Your task to perform on an android device: Open Amazon Image 0: 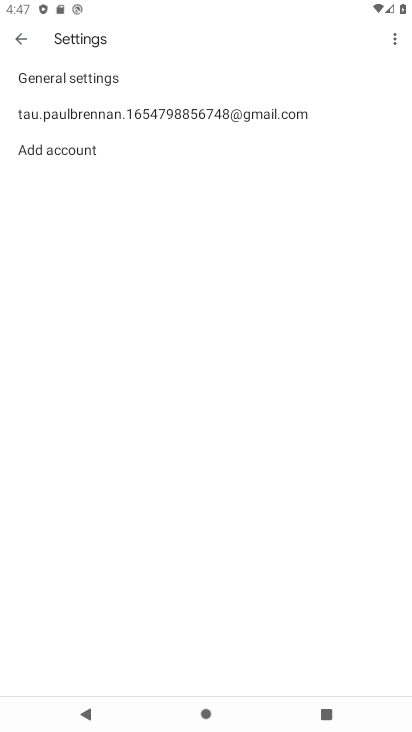
Step 0: press home button
Your task to perform on an android device: Open Amazon Image 1: 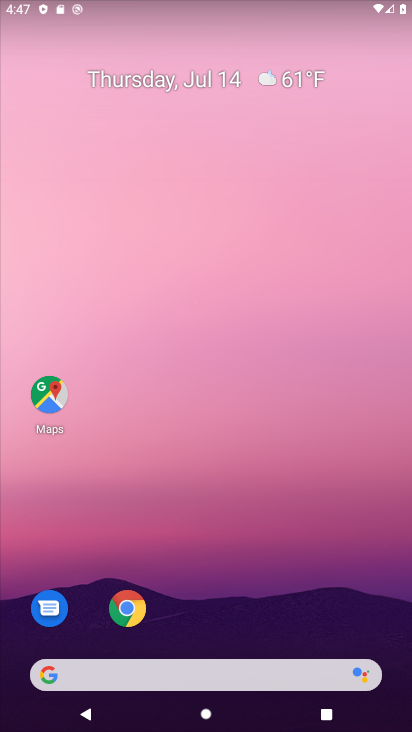
Step 1: click (129, 604)
Your task to perform on an android device: Open Amazon Image 2: 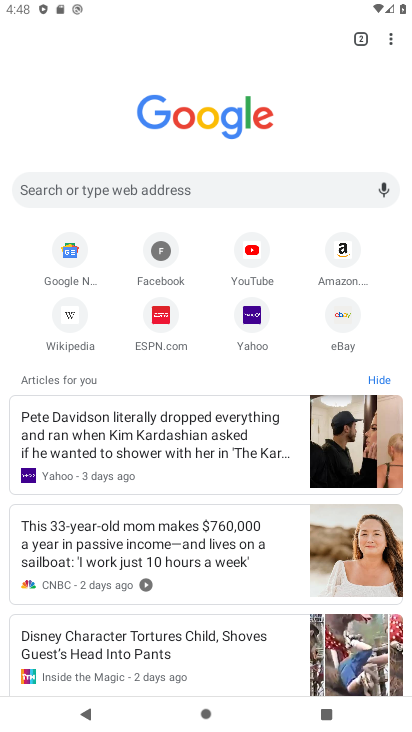
Step 2: click (347, 243)
Your task to perform on an android device: Open Amazon Image 3: 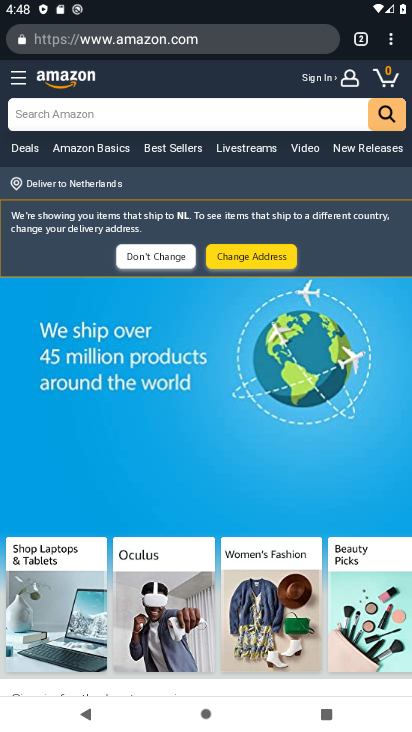
Step 3: task complete